Your task to perform on an android device: Install the ESPN app Image 0: 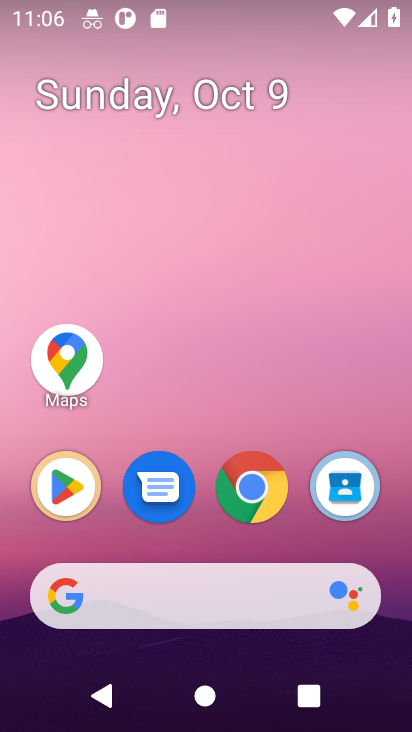
Step 0: click (259, 494)
Your task to perform on an android device: Install the ESPN app Image 1: 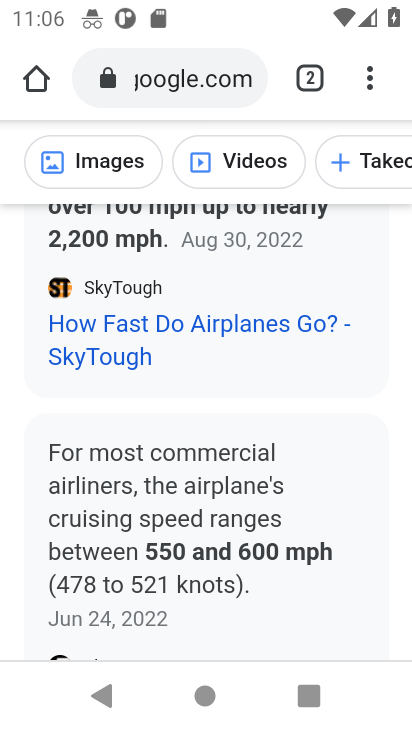
Step 1: press home button
Your task to perform on an android device: Install the ESPN app Image 2: 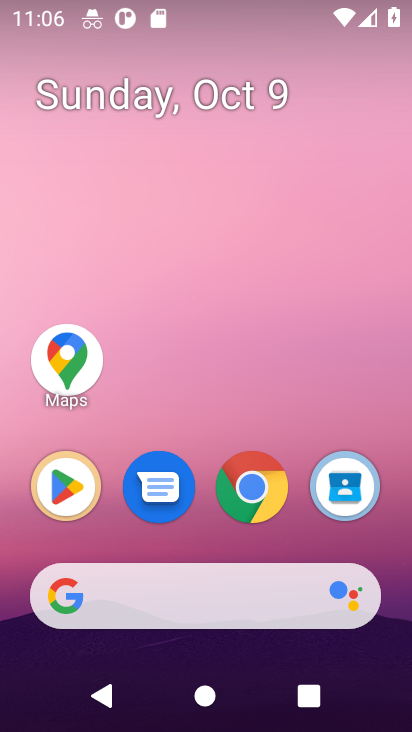
Step 2: click (254, 490)
Your task to perform on an android device: Install the ESPN app Image 3: 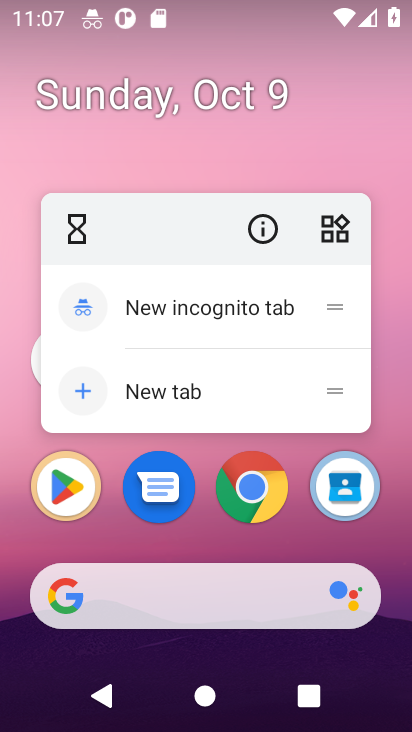
Step 3: click (255, 504)
Your task to perform on an android device: Install the ESPN app Image 4: 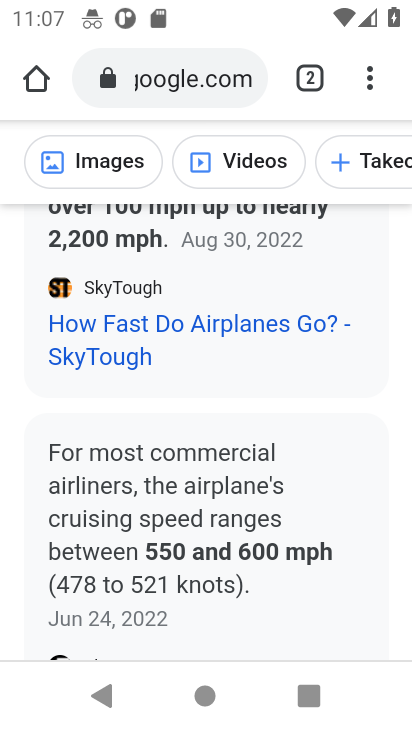
Step 4: click (217, 92)
Your task to perform on an android device: Install the ESPN app Image 5: 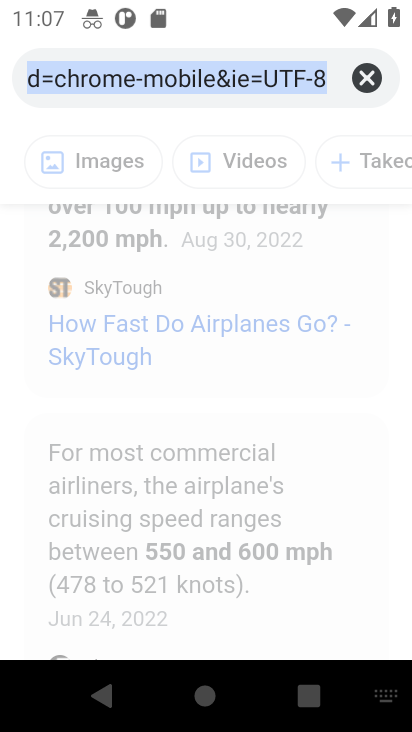
Step 5: type "espn app"
Your task to perform on an android device: Install the ESPN app Image 6: 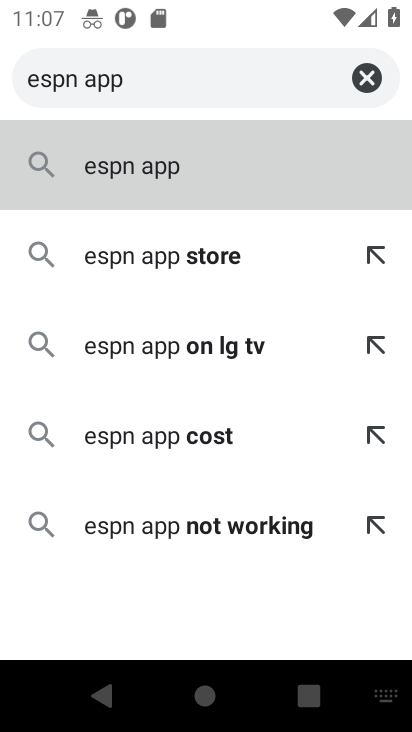
Step 6: click (181, 198)
Your task to perform on an android device: Install the ESPN app Image 7: 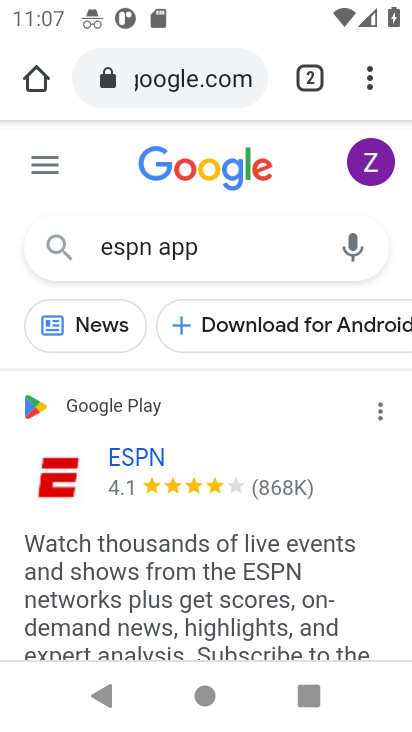
Step 7: click (135, 462)
Your task to perform on an android device: Install the ESPN app Image 8: 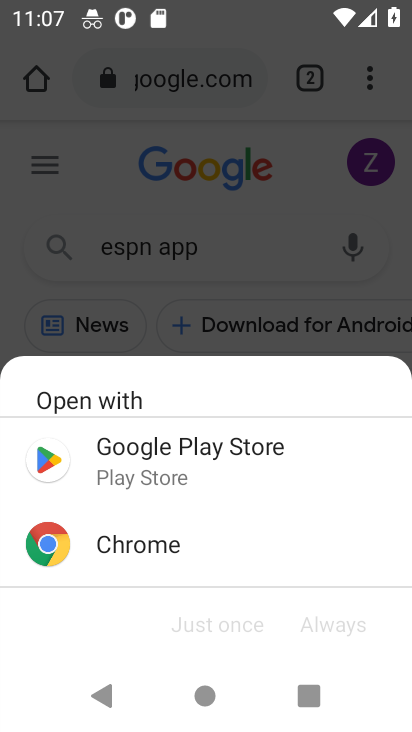
Step 8: click (135, 465)
Your task to perform on an android device: Install the ESPN app Image 9: 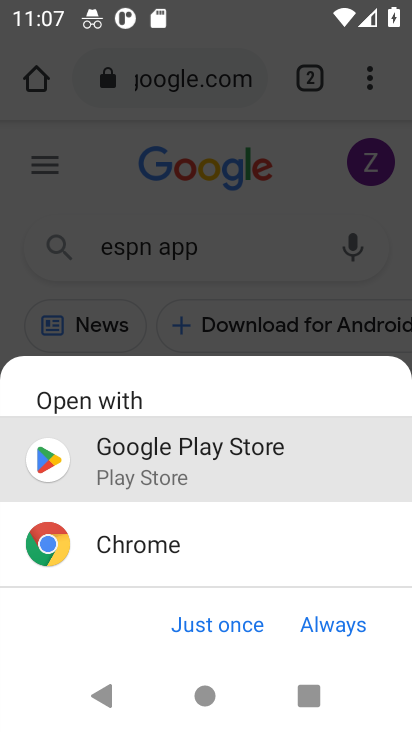
Step 9: click (243, 633)
Your task to perform on an android device: Install the ESPN app Image 10: 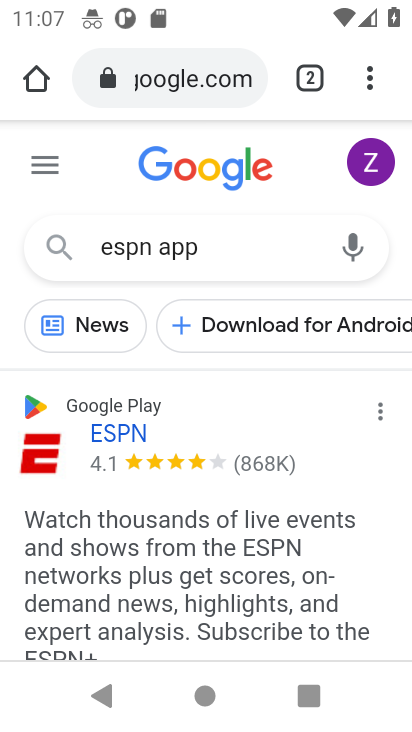
Step 10: drag from (288, 572) to (289, 295)
Your task to perform on an android device: Install the ESPN app Image 11: 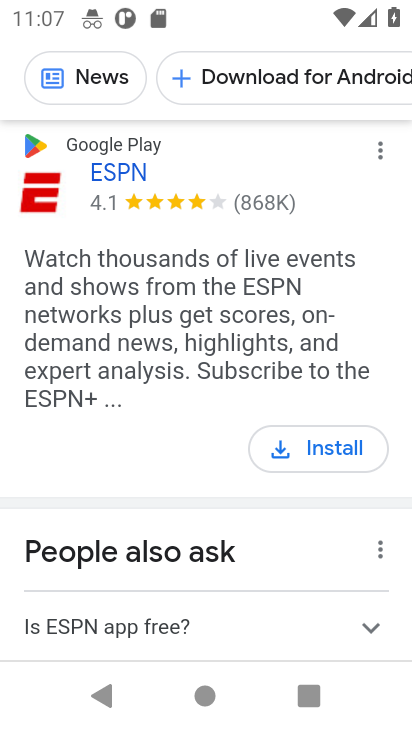
Step 11: click (307, 454)
Your task to perform on an android device: Install the ESPN app Image 12: 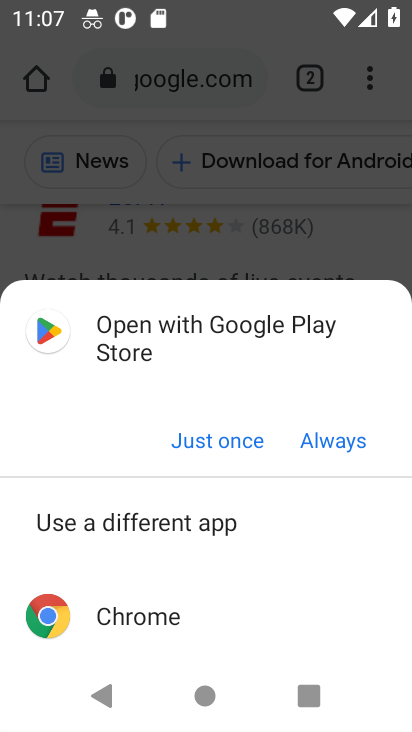
Step 12: click (142, 625)
Your task to perform on an android device: Install the ESPN app Image 13: 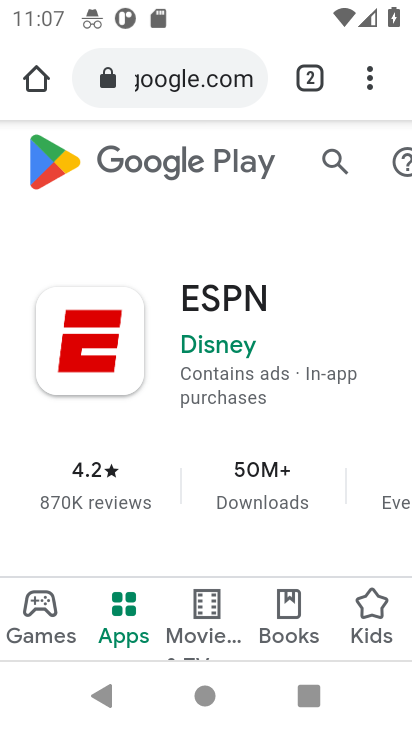
Step 13: drag from (201, 521) to (164, 462)
Your task to perform on an android device: Install the ESPN app Image 14: 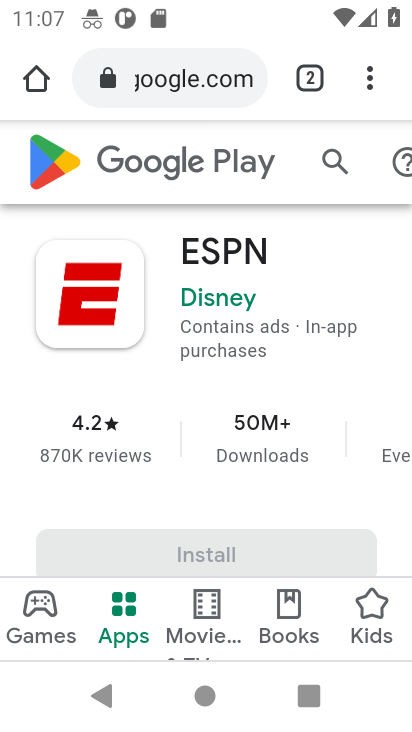
Step 14: drag from (347, 361) to (207, 362)
Your task to perform on an android device: Install the ESPN app Image 15: 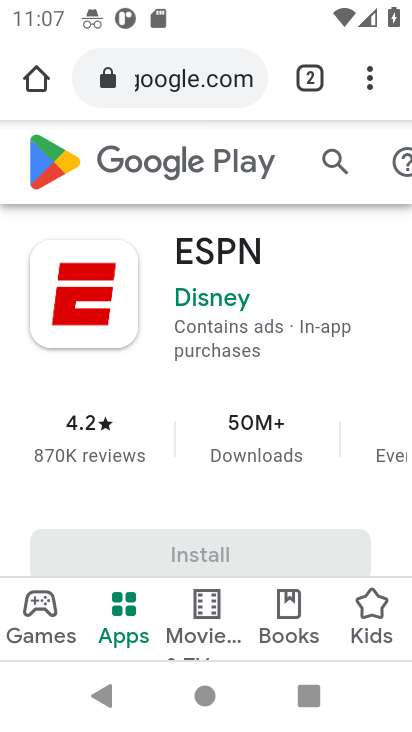
Step 15: click (372, 87)
Your task to perform on an android device: Install the ESPN app Image 16: 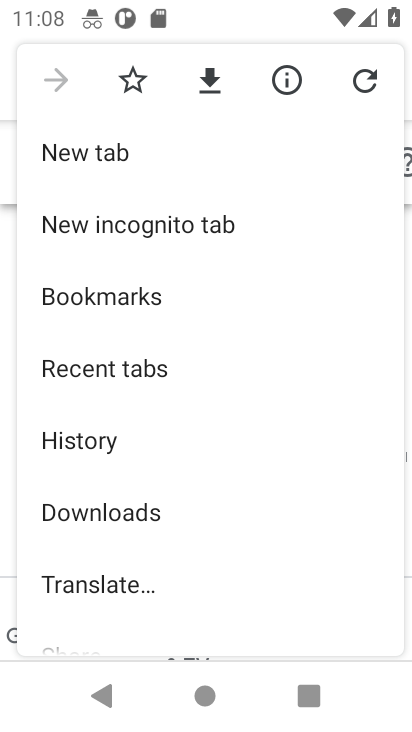
Step 16: drag from (253, 613) to (257, 130)
Your task to perform on an android device: Install the ESPN app Image 17: 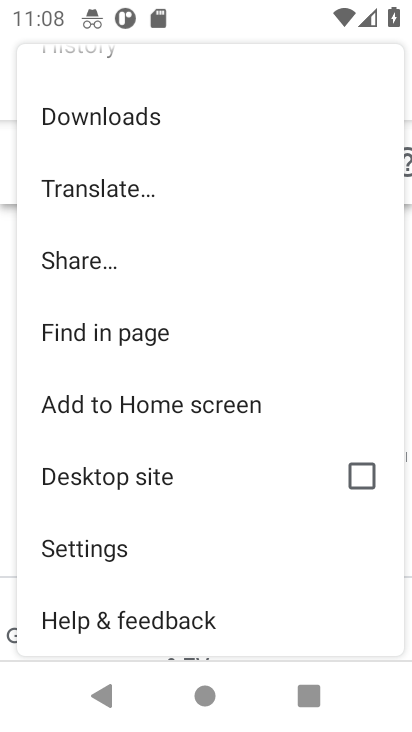
Step 17: drag from (202, 595) to (179, 208)
Your task to perform on an android device: Install the ESPN app Image 18: 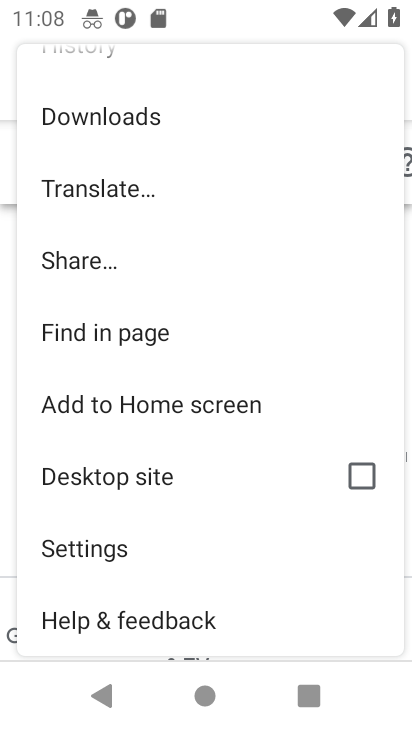
Step 18: drag from (181, 298) to (190, 636)
Your task to perform on an android device: Install the ESPN app Image 19: 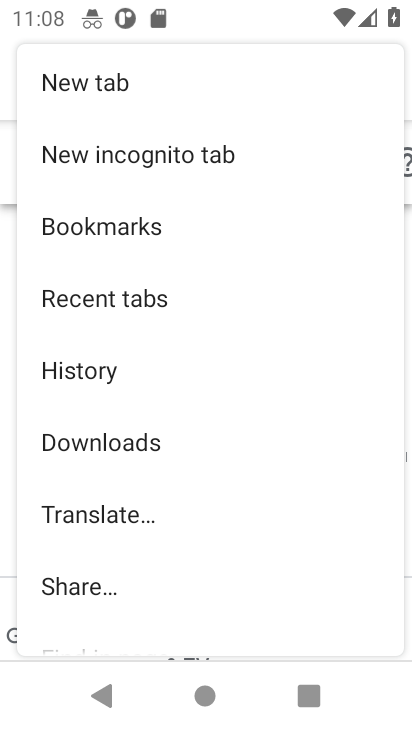
Step 19: drag from (188, 229) to (183, 563)
Your task to perform on an android device: Install the ESPN app Image 20: 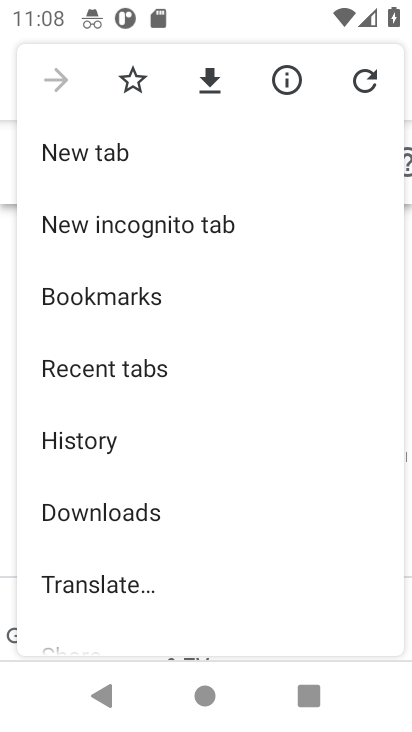
Step 20: click (9, 231)
Your task to perform on an android device: Install the ESPN app Image 21: 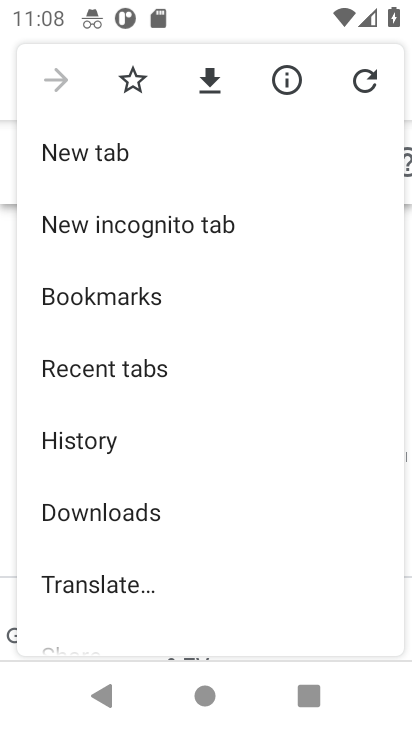
Step 21: press back button
Your task to perform on an android device: Install the ESPN app Image 22: 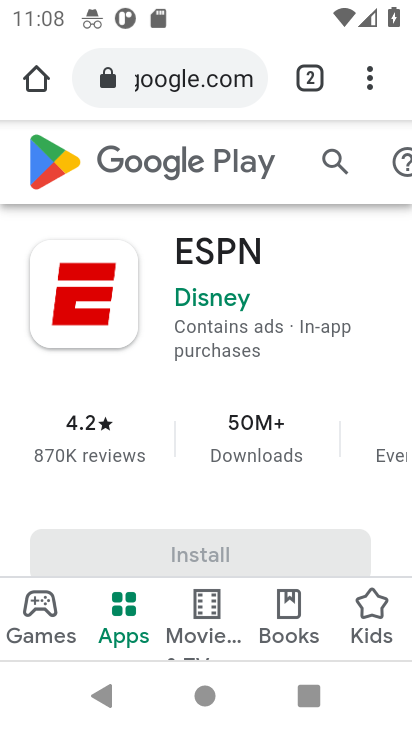
Step 22: drag from (256, 502) to (294, 188)
Your task to perform on an android device: Install the ESPN app Image 23: 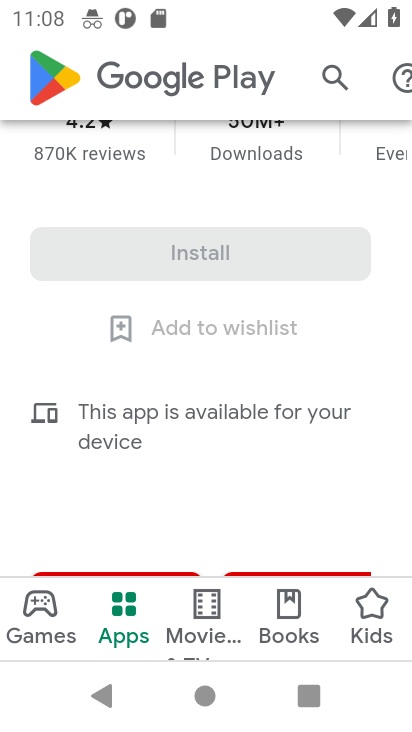
Step 23: drag from (283, 490) to (325, 683)
Your task to perform on an android device: Install the ESPN app Image 24: 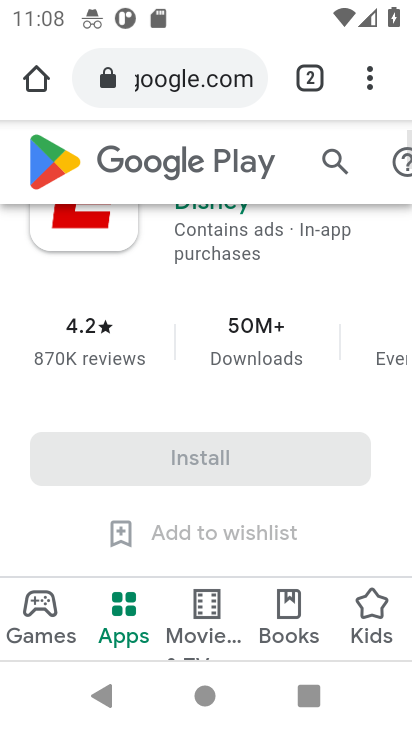
Step 24: drag from (233, 258) to (269, 499)
Your task to perform on an android device: Install the ESPN app Image 25: 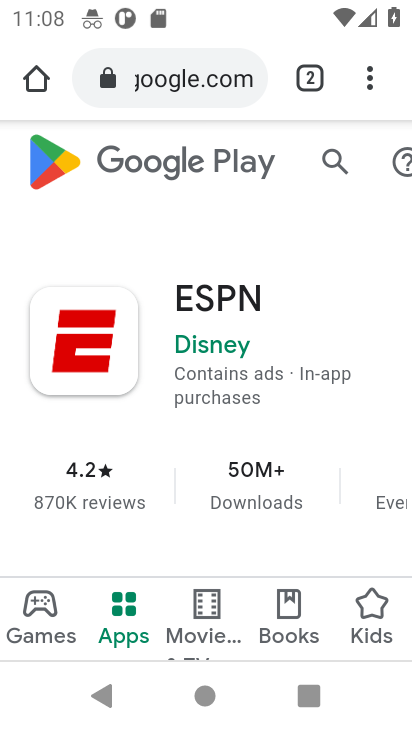
Step 25: click (80, 321)
Your task to perform on an android device: Install the ESPN app Image 26: 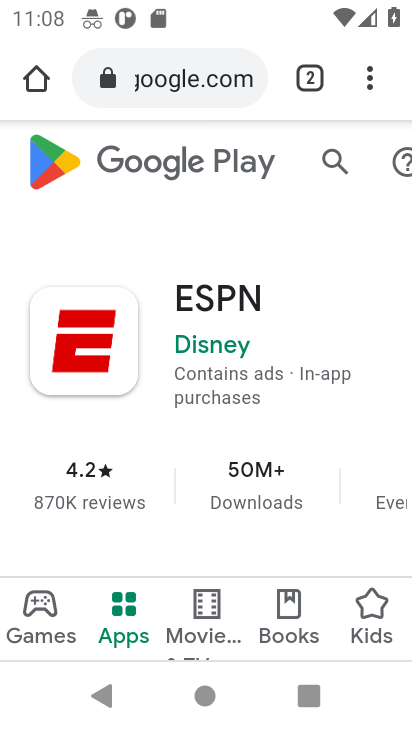
Step 26: drag from (226, 47) to (282, 591)
Your task to perform on an android device: Install the ESPN app Image 27: 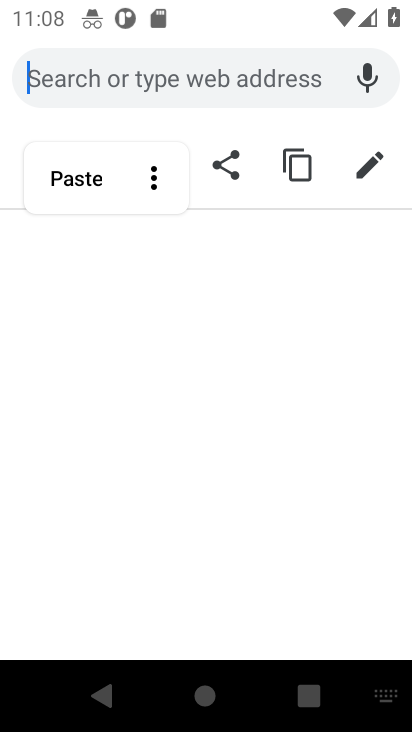
Step 27: drag from (176, 3) to (193, 656)
Your task to perform on an android device: Install the ESPN app Image 28: 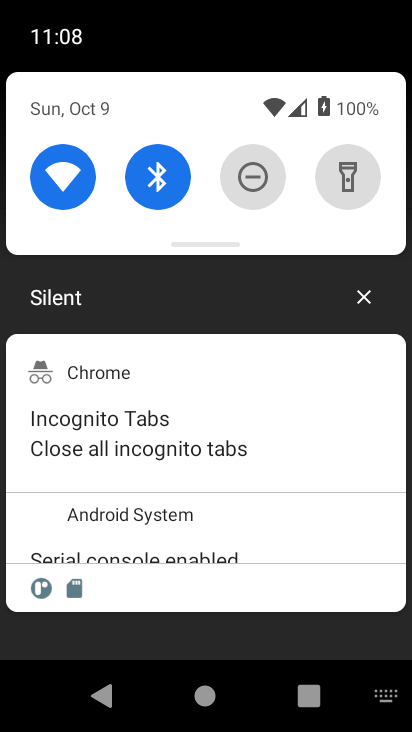
Step 28: drag from (76, 445) to (409, 543)
Your task to perform on an android device: Install the ESPN app Image 29: 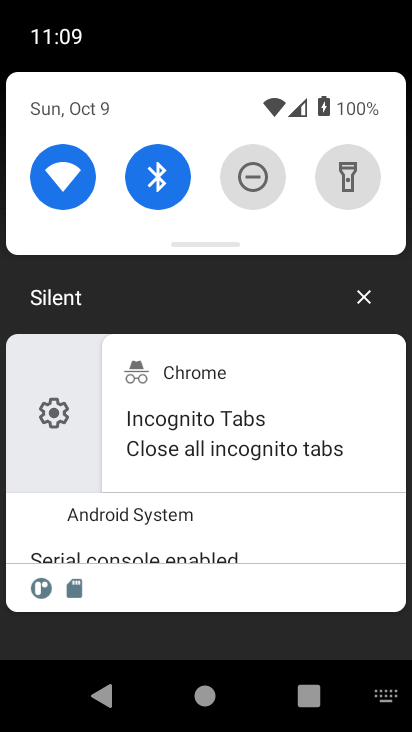
Step 29: drag from (204, 542) to (189, 304)
Your task to perform on an android device: Install the ESPN app Image 30: 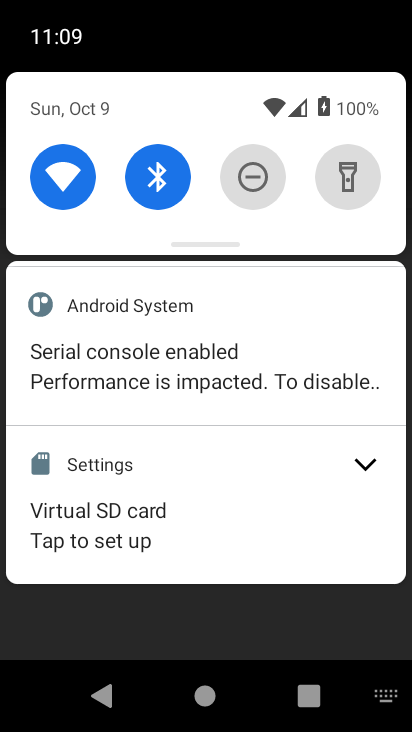
Step 30: click (275, 661)
Your task to perform on an android device: Install the ESPN app Image 31: 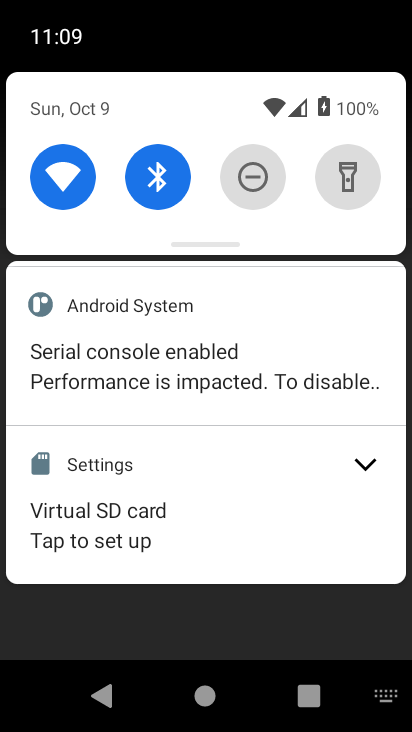
Step 31: task complete